Your task to perform on an android device: turn on airplane mode Image 0: 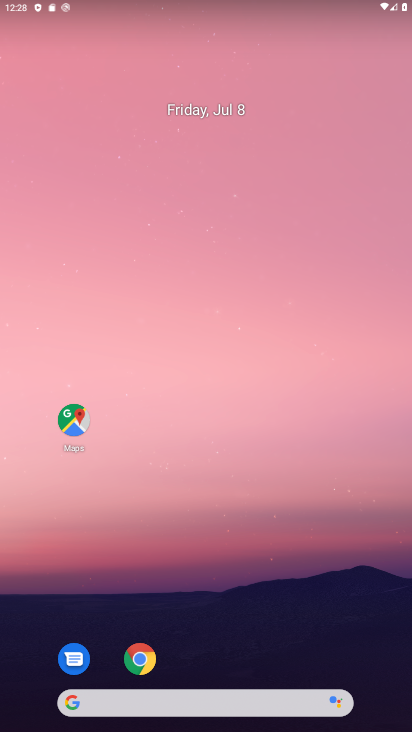
Step 0: drag from (343, 635) to (299, 134)
Your task to perform on an android device: turn on airplane mode Image 1: 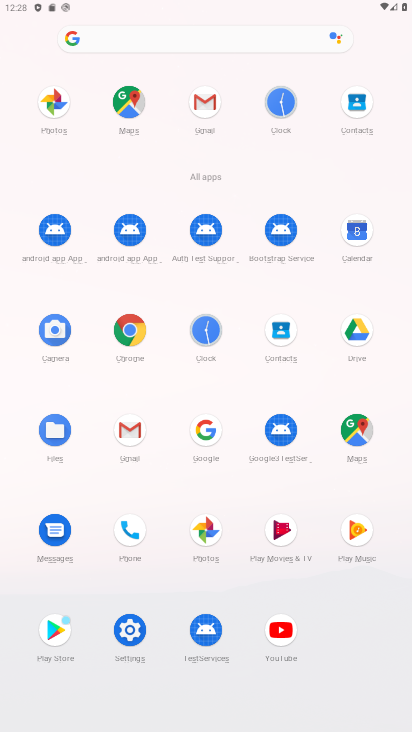
Step 1: click (126, 634)
Your task to perform on an android device: turn on airplane mode Image 2: 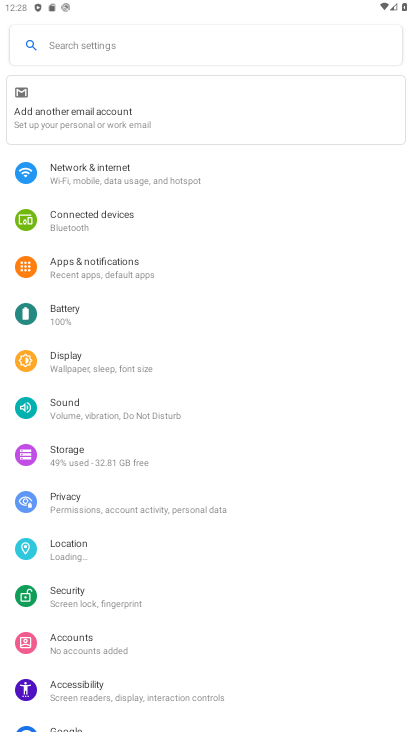
Step 2: click (92, 169)
Your task to perform on an android device: turn on airplane mode Image 3: 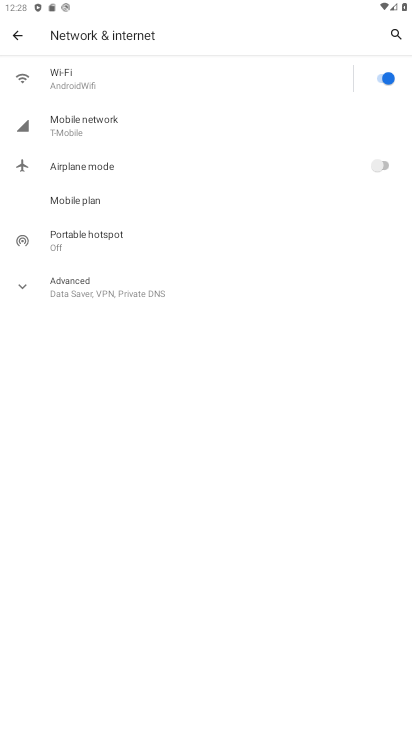
Step 3: click (382, 164)
Your task to perform on an android device: turn on airplane mode Image 4: 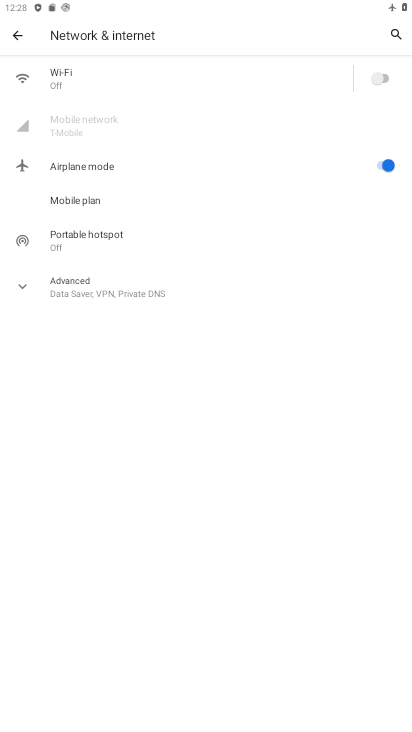
Step 4: task complete